Your task to perform on an android device: open device folders in google photos Image 0: 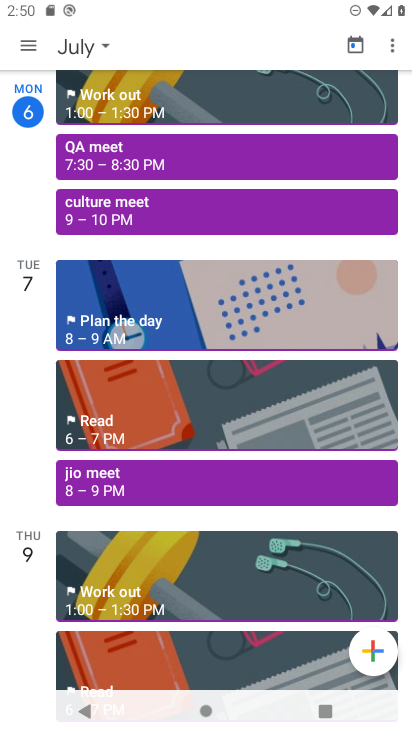
Step 0: press home button
Your task to perform on an android device: open device folders in google photos Image 1: 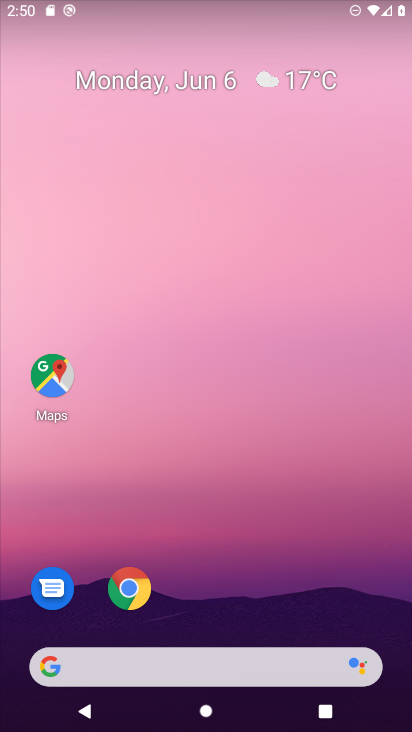
Step 1: drag from (257, 711) to (209, 124)
Your task to perform on an android device: open device folders in google photos Image 2: 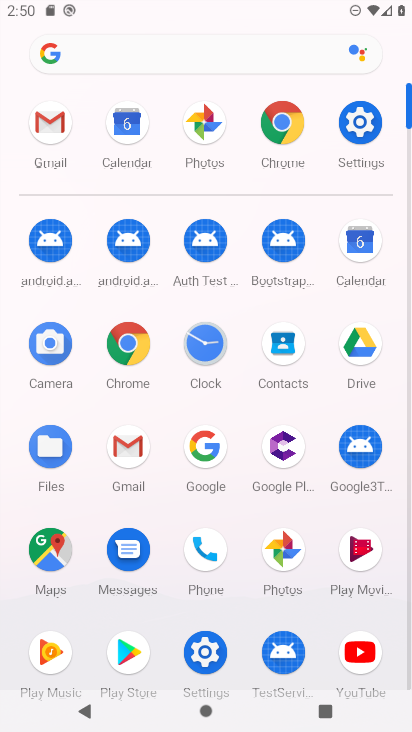
Step 2: click (309, 548)
Your task to perform on an android device: open device folders in google photos Image 3: 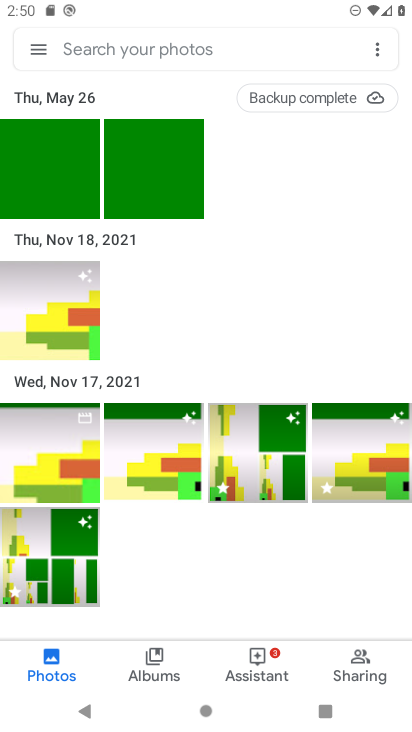
Step 3: click (38, 47)
Your task to perform on an android device: open device folders in google photos Image 4: 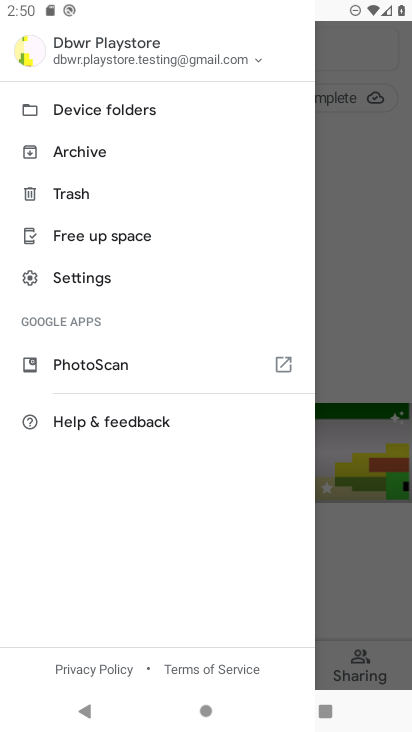
Step 4: click (134, 109)
Your task to perform on an android device: open device folders in google photos Image 5: 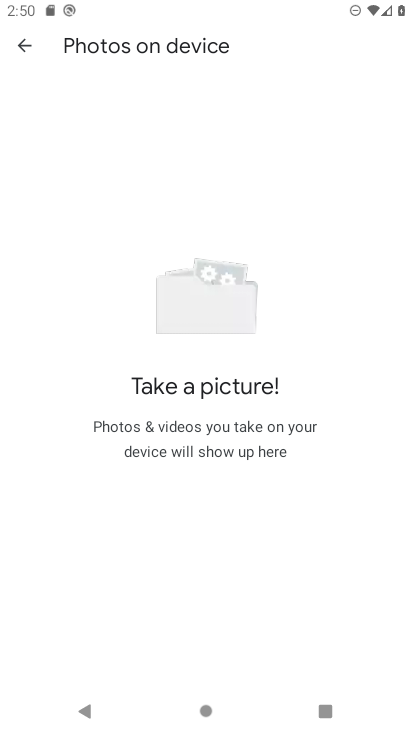
Step 5: task complete